Your task to perform on an android device: Open notification settings Image 0: 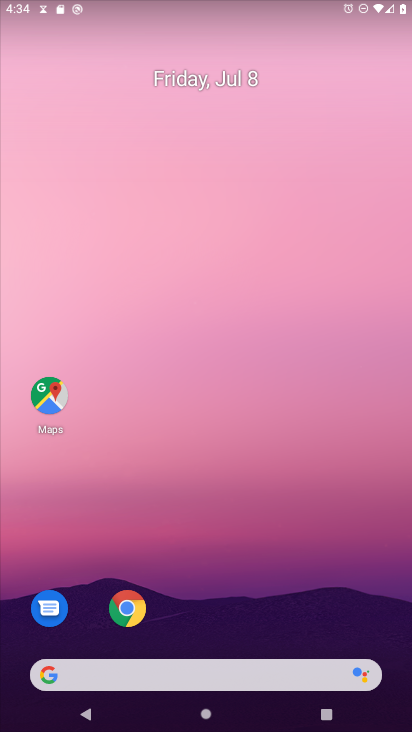
Step 0: drag from (131, 678) to (183, 27)
Your task to perform on an android device: Open notification settings Image 1: 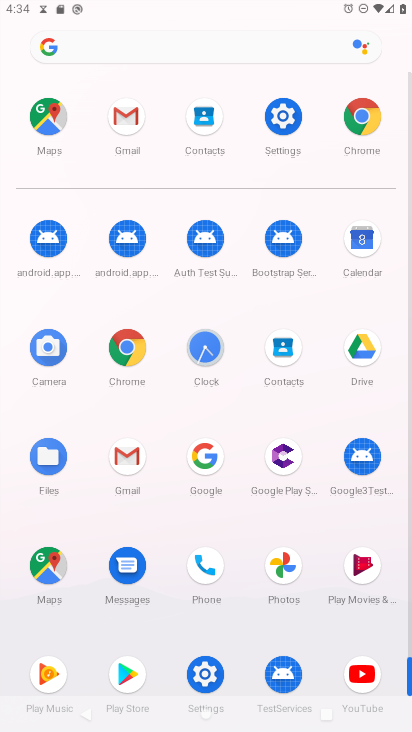
Step 1: click (298, 116)
Your task to perform on an android device: Open notification settings Image 2: 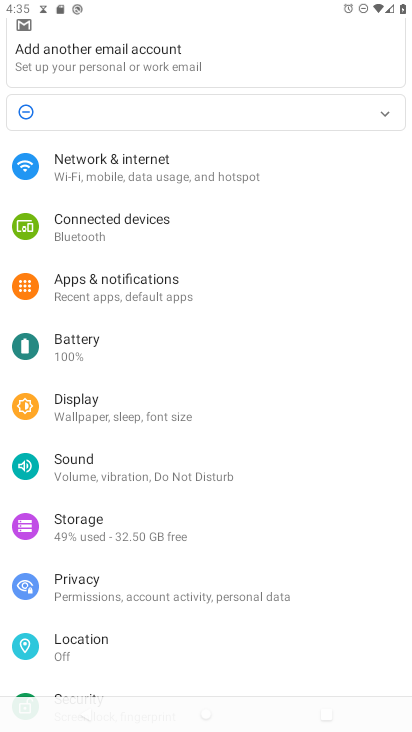
Step 2: click (140, 269)
Your task to perform on an android device: Open notification settings Image 3: 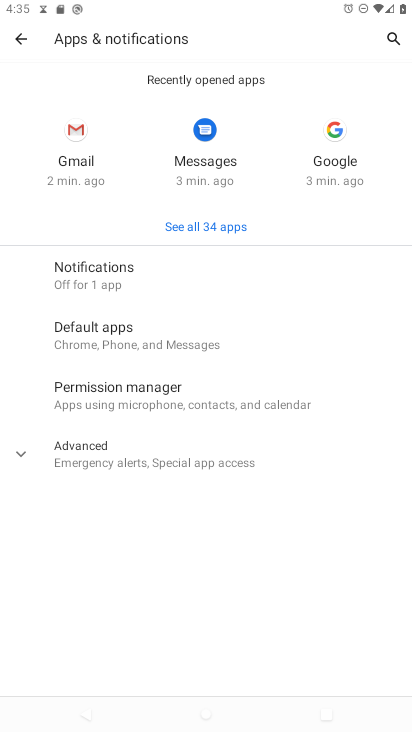
Step 3: task complete